Your task to perform on an android device: Open the web browser Image 0: 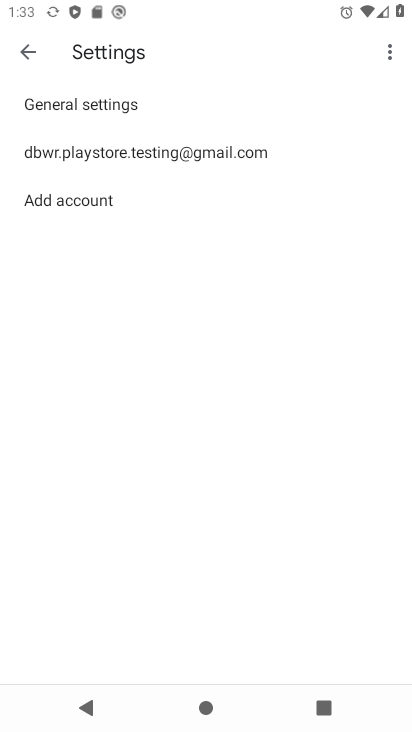
Step 0: press home button
Your task to perform on an android device: Open the web browser Image 1: 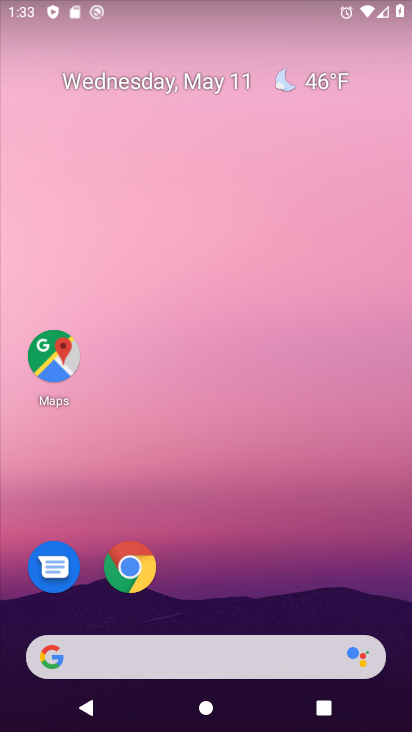
Step 1: click (222, 639)
Your task to perform on an android device: Open the web browser Image 2: 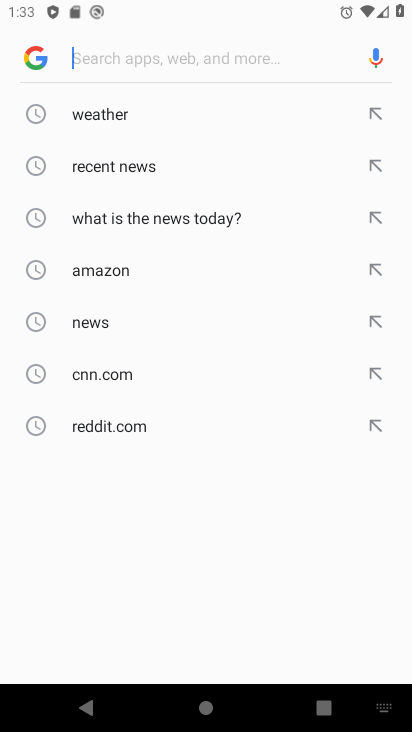
Step 2: task complete